Your task to perform on an android device: What's the news this week? Image 0: 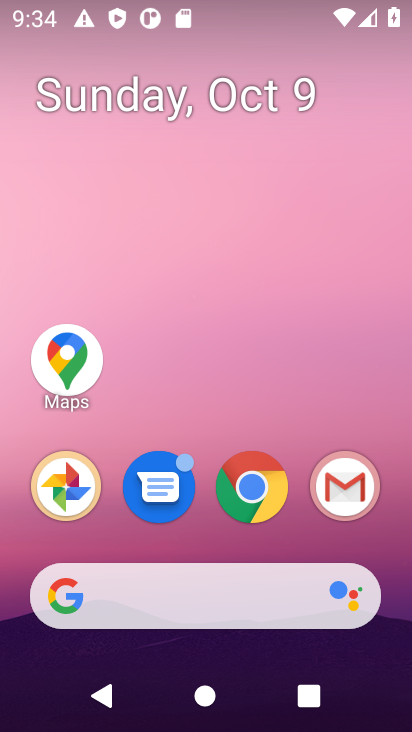
Step 0: drag from (227, 627) to (257, 200)
Your task to perform on an android device: What's the news this week? Image 1: 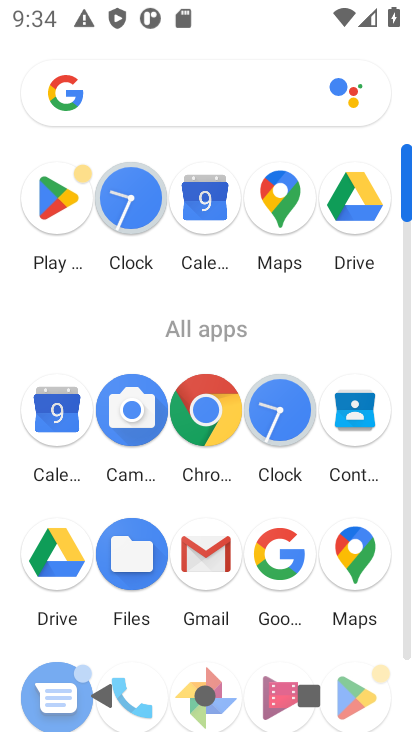
Step 1: click (269, 563)
Your task to perform on an android device: What's the news this week? Image 2: 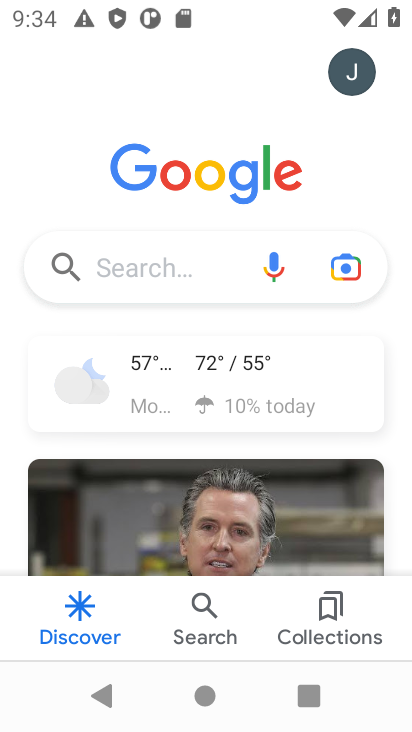
Step 2: click (179, 264)
Your task to perform on an android device: What's the news this week? Image 3: 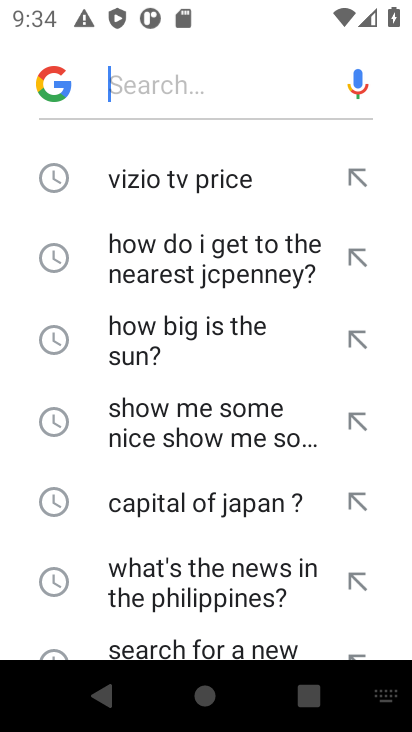
Step 3: type "thik week newsa"
Your task to perform on an android device: What's the news this week? Image 4: 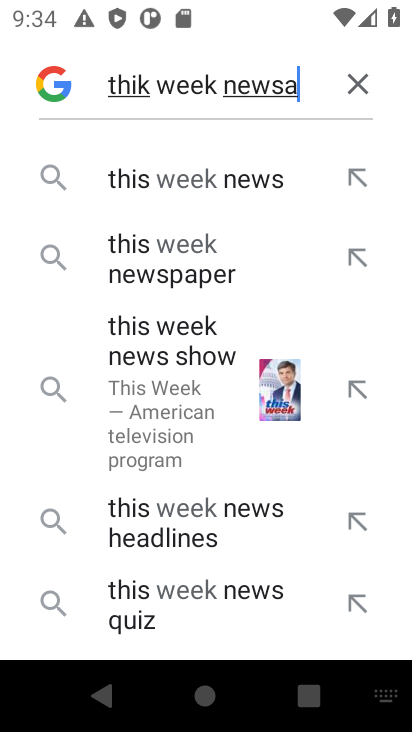
Step 4: click (272, 172)
Your task to perform on an android device: What's the news this week? Image 5: 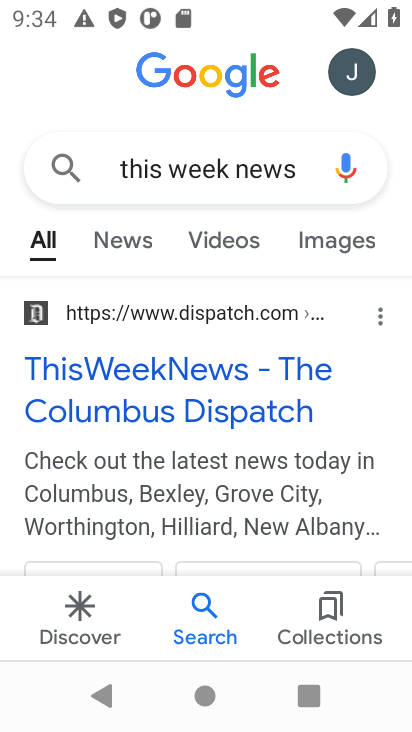
Step 5: click (126, 232)
Your task to perform on an android device: What's the news this week? Image 6: 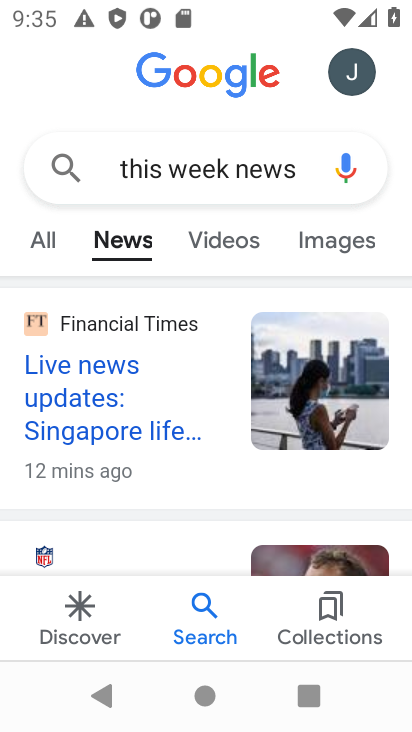
Step 6: task complete